Your task to perform on an android device: Go to wifi settings Image 0: 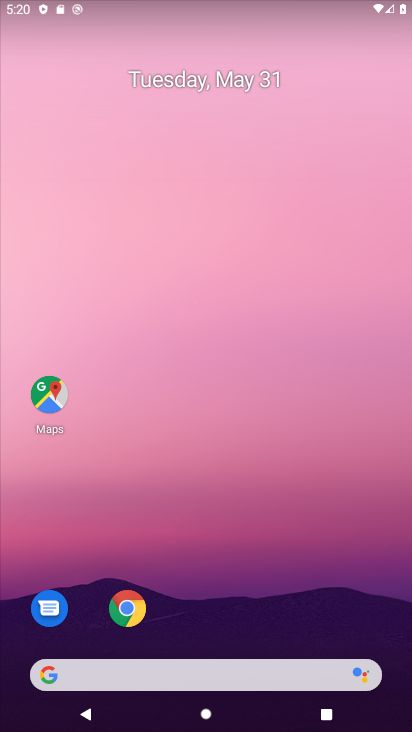
Step 0: drag from (258, 660) to (295, 92)
Your task to perform on an android device: Go to wifi settings Image 1: 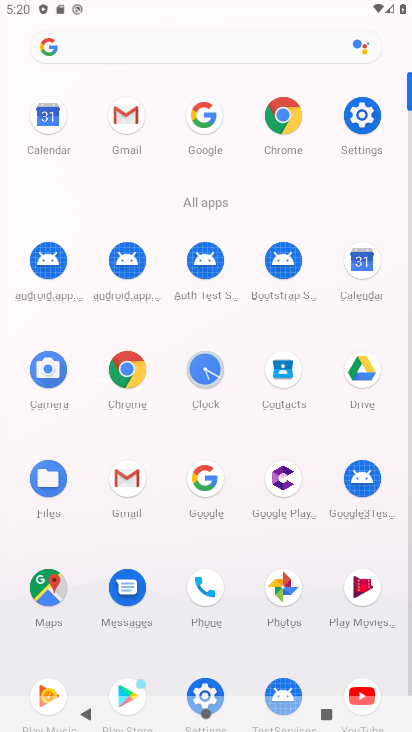
Step 1: click (364, 115)
Your task to perform on an android device: Go to wifi settings Image 2: 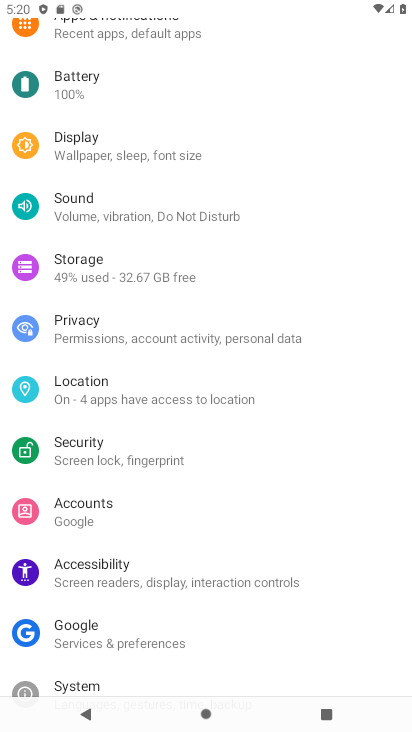
Step 2: drag from (164, 63) to (146, 371)
Your task to perform on an android device: Go to wifi settings Image 3: 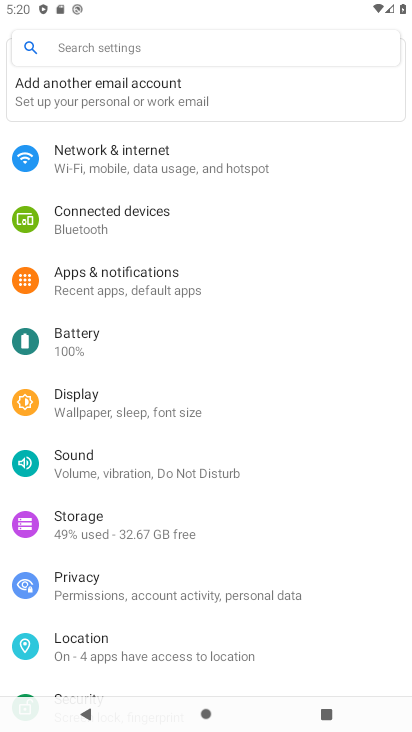
Step 3: click (163, 167)
Your task to perform on an android device: Go to wifi settings Image 4: 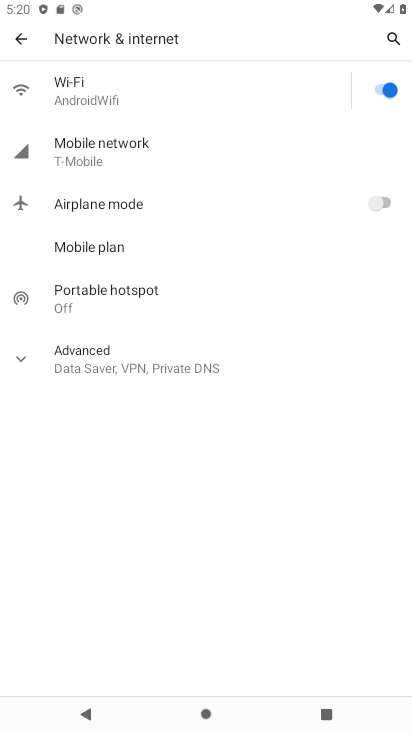
Step 4: click (119, 105)
Your task to perform on an android device: Go to wifi settings Image 5: 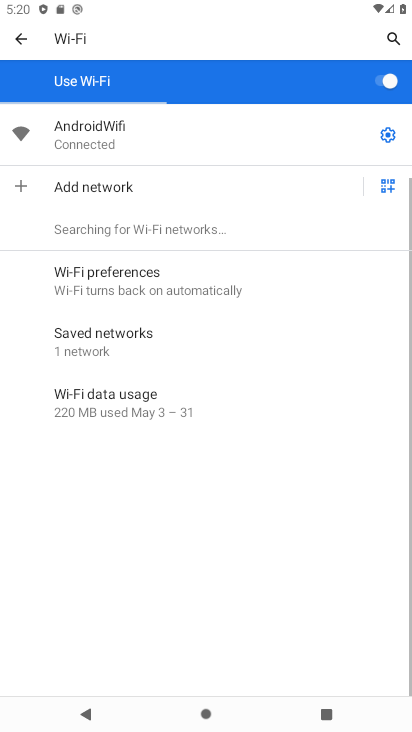
Step 5: click (383, 142)
Your task to perform on an android device: Go to wifi settings Image 6: 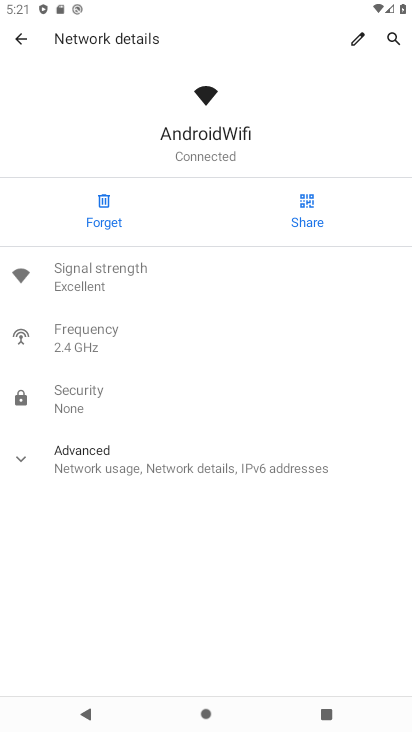
Step 6: click (251, 459)
Your task to perform on an android device: Go to wifi settings Image 7: 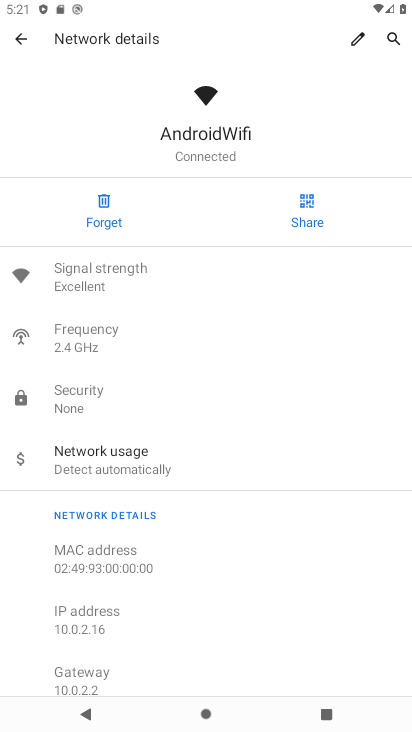
Step 7: task complete